Your task to perform on an android device: Show me popular games on the Play Store Image 0: 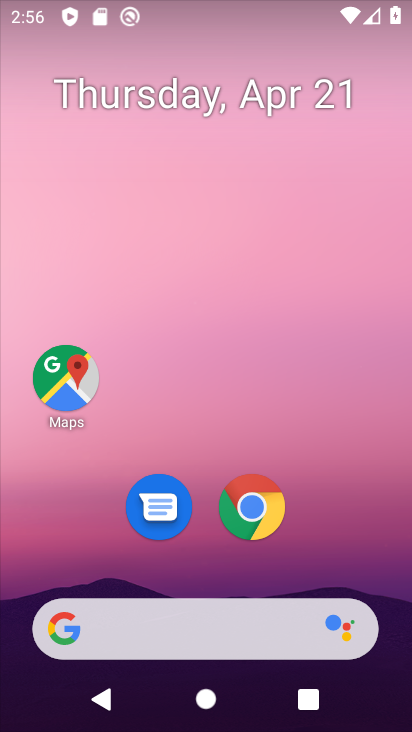
Step 0: click (274, 251)
Your task to perform on an android device: Show me popular games on the Play Store Image 1: 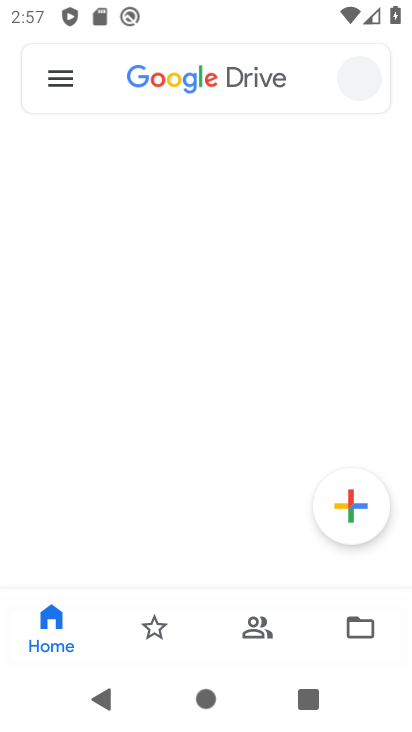
Step 1: press home button
Your task to perform on an android device: Show me popular games on the Play Store Image 2: 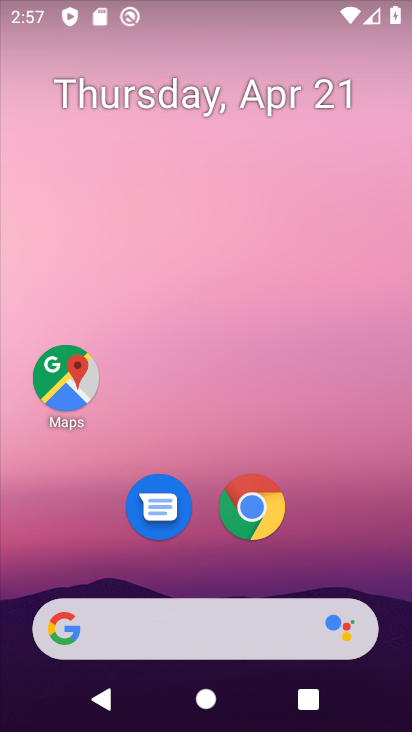
Step 2: drag from (346, 576) to (323, 129)
Your task to perform on an android device: Show me popular games on the Play Store Image 3: 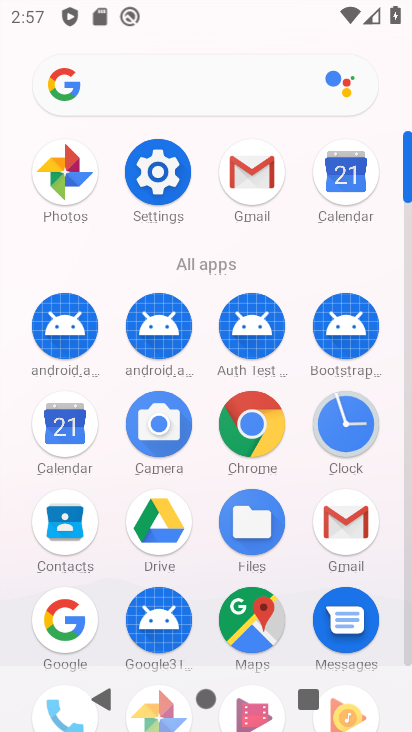
Step 3: drag from (369, 657) to (384, 222)
Your task to perform on an android device: Show me popular games on the Play Store Image 4: 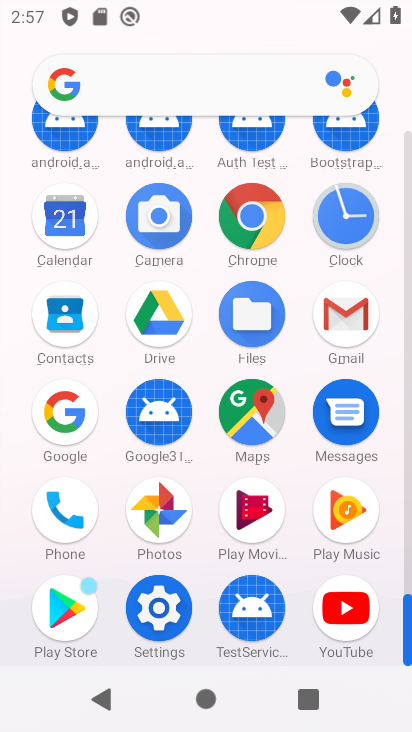
Step 4: click (66, 608)
Your task to perform on an android device: Show me popular games on the Play Store Image 5: 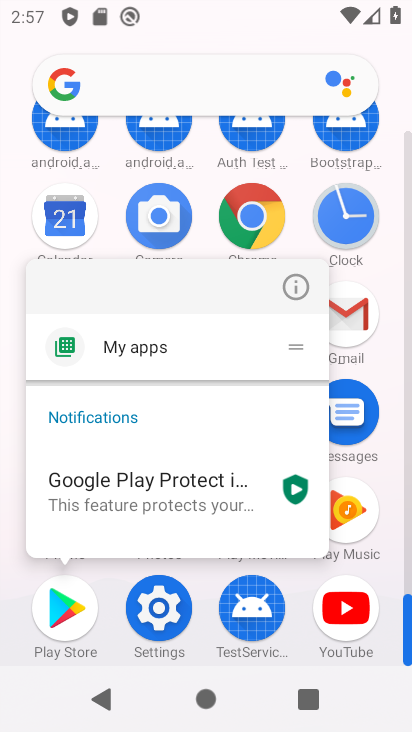
Step 5: click (69, 619)
Your task to perform on an android device: Show me popular games on the Play Store Image 6: 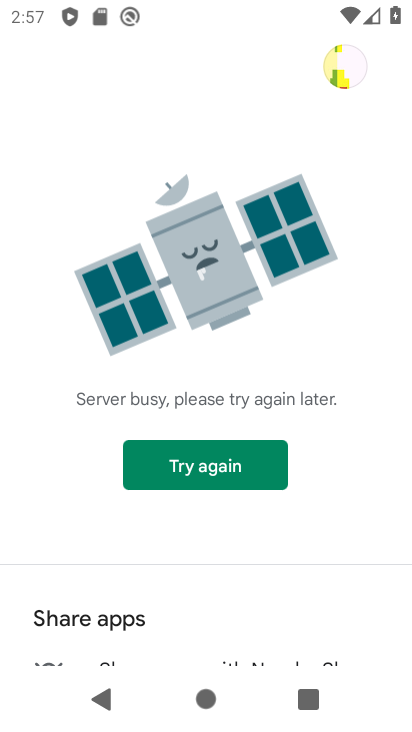
Step 6: task complete